Your task to perform on an android device: Go to Google Image 0: 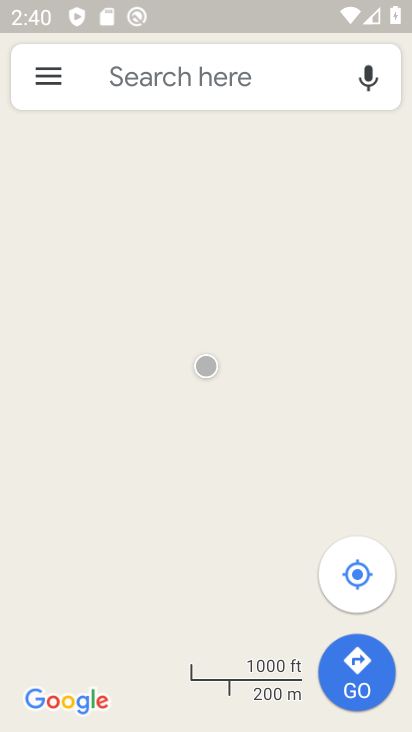
Step 0: press home button
Your task to perform on an android device: Go to Google Image 1: 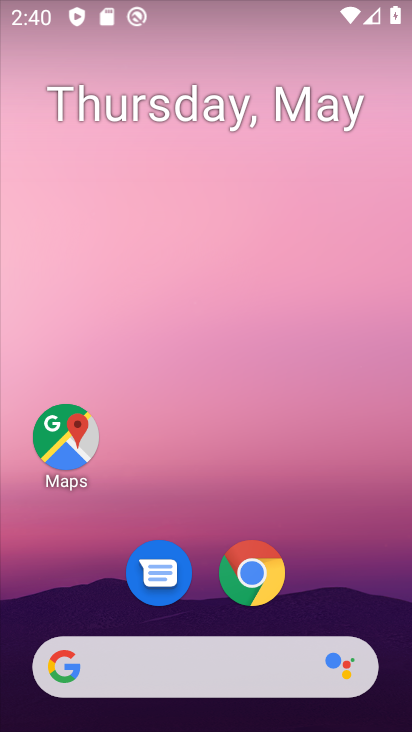
Step 1: click (53, 666)
Your task to perform on an android device: Go to Google Image 2: 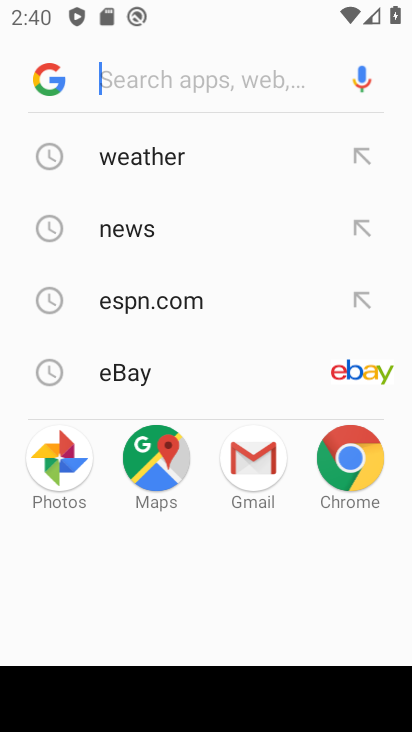
Step 2: click (107, 66)
Your task to perform on an android device: Go to Google Image 3: 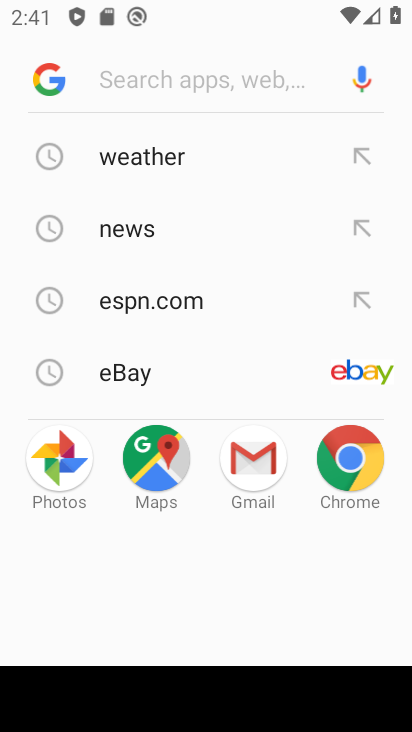
Step 3: task complete